Your task to perform on an android device: Open the stopwatch Image 0: 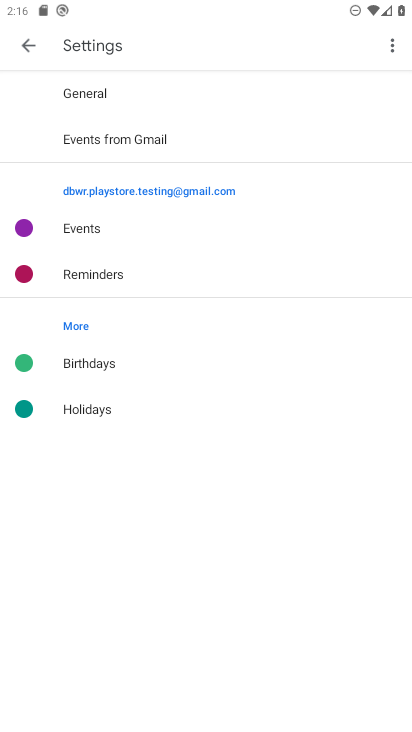
Step 0: press home button
Your task to perform on an android device: Open the stopwatch Image 1: 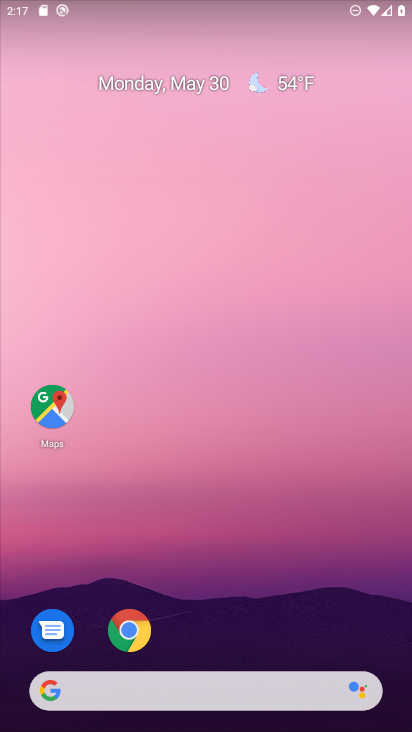
Step 1: drag from (240, 678) to (210, 1)
Your task to perform on an android device: Open the stopwatch Image 2: 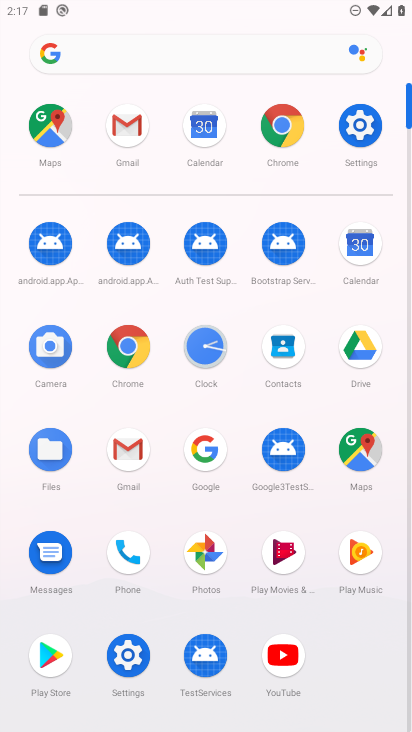
Step 2: click (199, 351)
Your task to perform on an android device: Open the stopwatch Image 3: 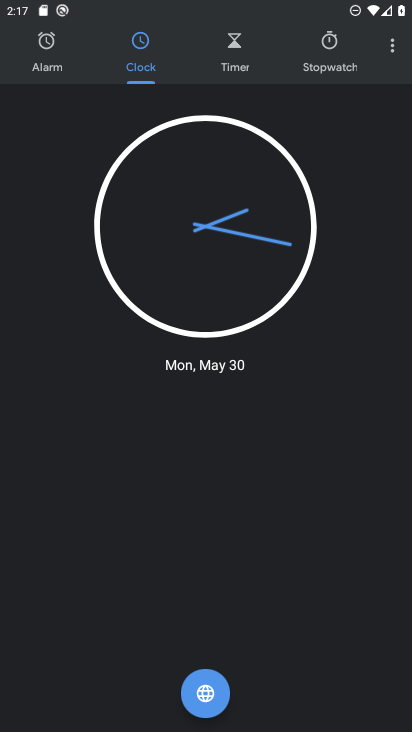
Step 3: click (340, 62)
Your task to perform on an android device: Open the stopwatch Image 4: 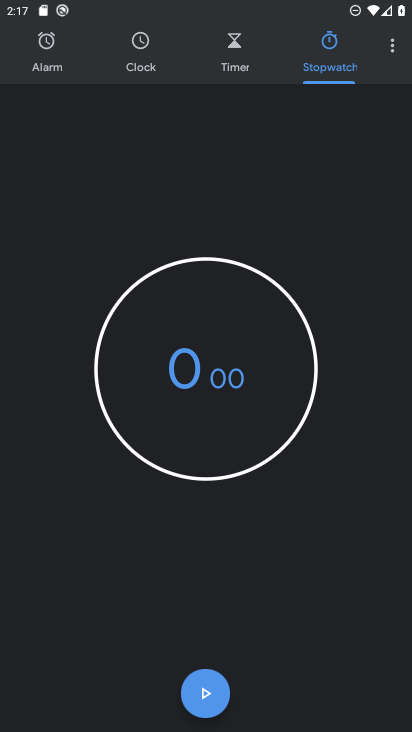
Step 4: task complete